Your task to perform on an android device: show emergency info Image 0: 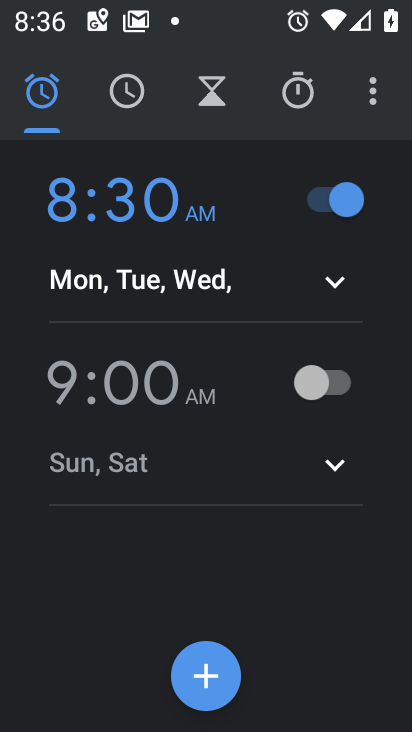
Step 0: press home button
Your task to perform on an android device: show emergency info Image 1: 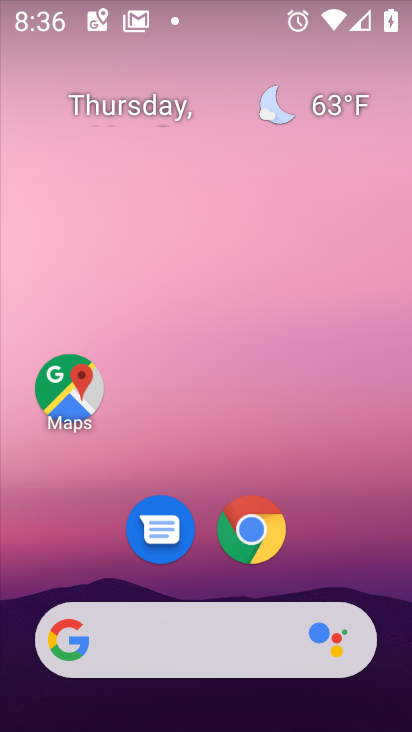
Step 1: drag from (208, 573) to (196, 140)
Your task to perform on an android device: show emergency info Image 2: 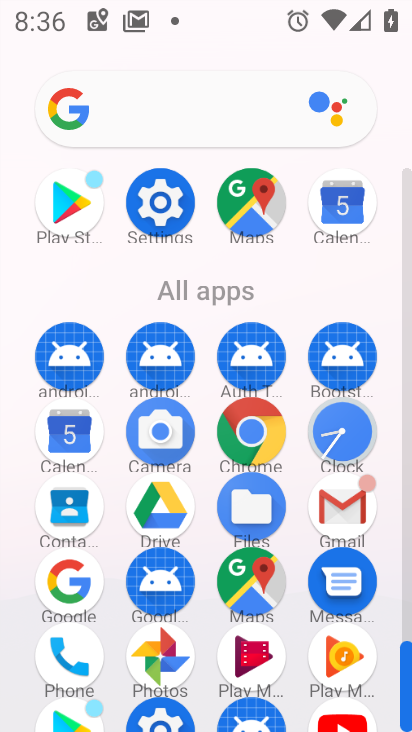
Step 2: click (169, 206)
Your task to perform on an android device: show emergency info Image 3: 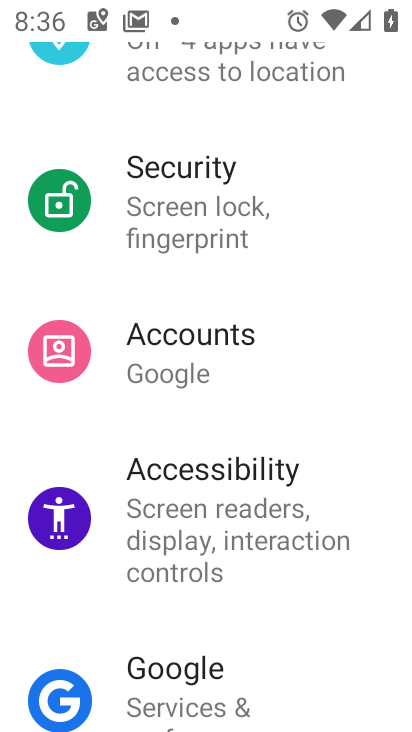
Step 3: drag from (215, 668) to (230, 132)
Your task to perform on an android device: show emergency info Image 4: 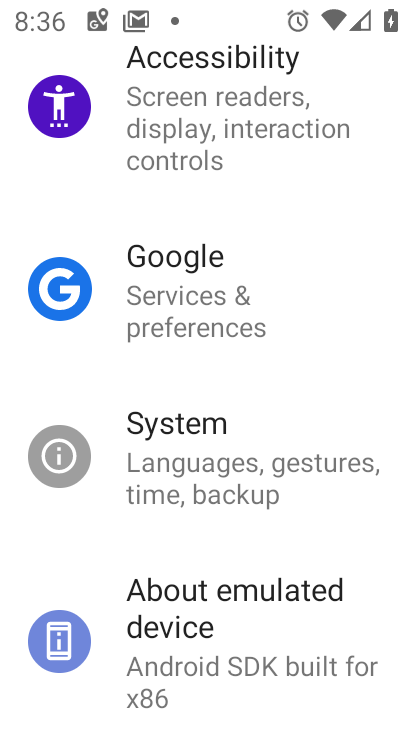
Step 4: drag from (236, 671) to (244, 176)
Your task to perform on an android device: show emergency info Image 5: 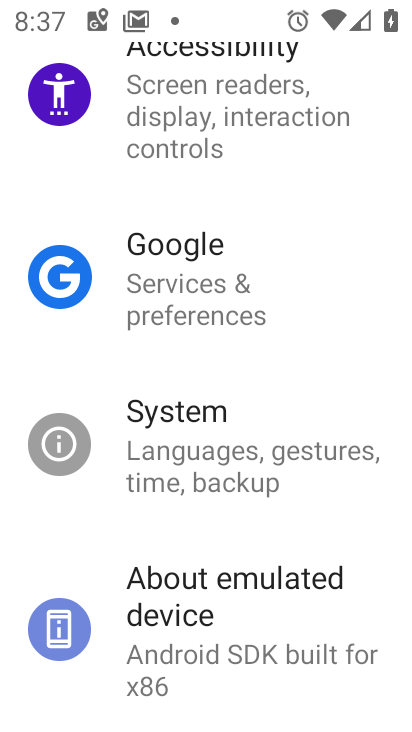
Step 5: drag from (188, 258) to (199, 535)
Your task to perform on an android device: show emergency info Image 6: 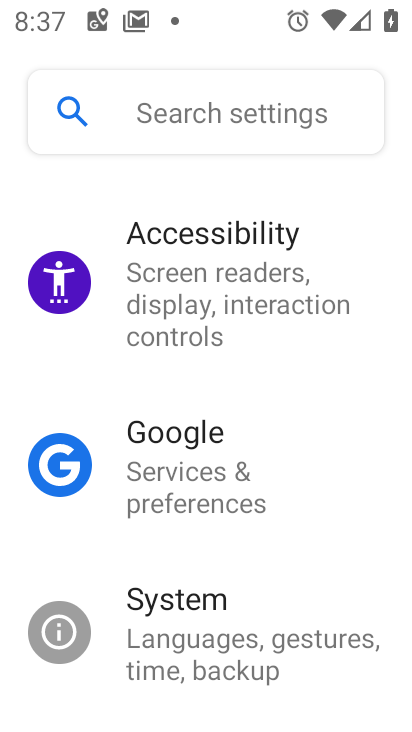
Step 6: drag from (222, 625) to (229, 187)
Your task to perform on an android device: show emergency info Image 7: 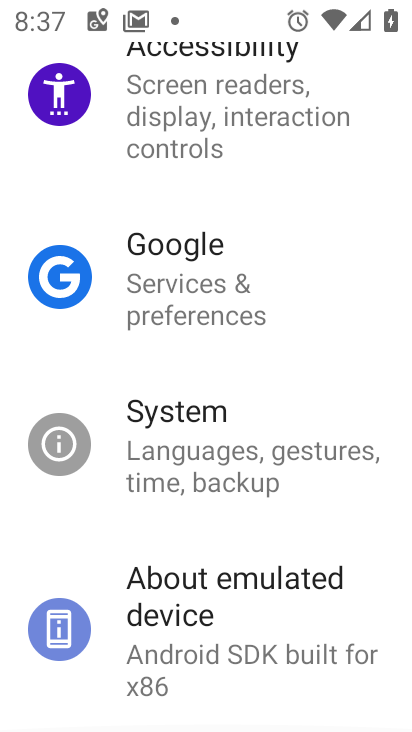
Step 7: click (193, 646)
Your task to perform on an android device: show emergency info Image 8: 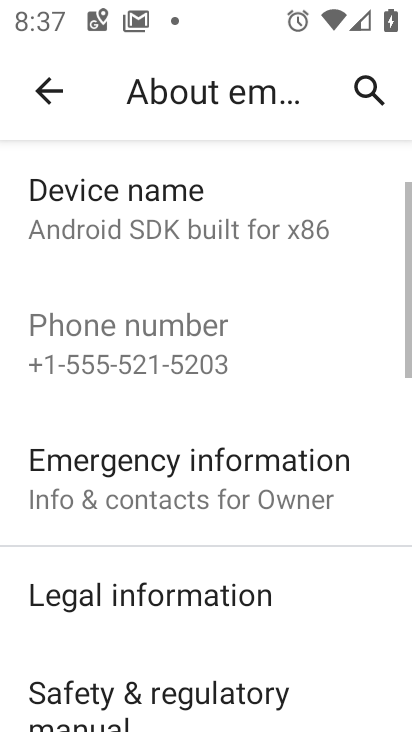
Step 8: click (176, 468)
Your task to perform on an android device: show emergency info Image 9: 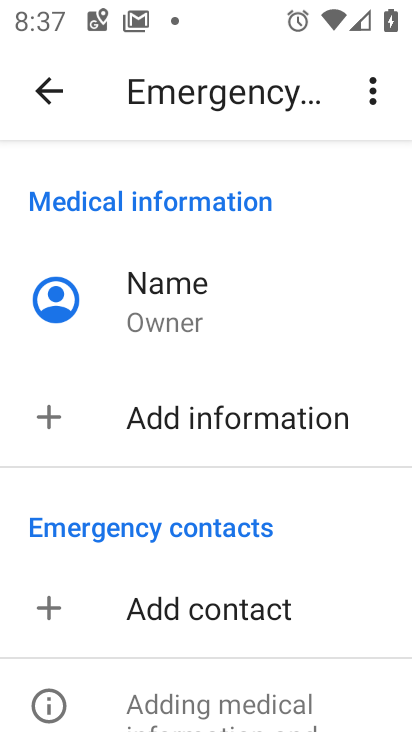
Step 9: task complete